Your task to perform on an android device: change timer sound Image 0: 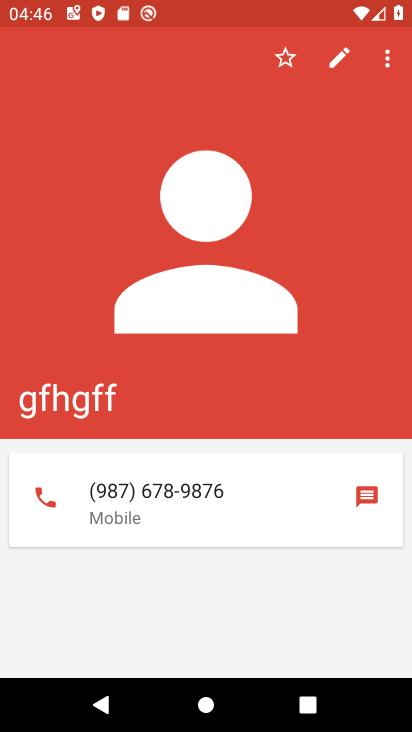
Step 0: press home button
Your task to perform on an android device: change timer sound Image 1: 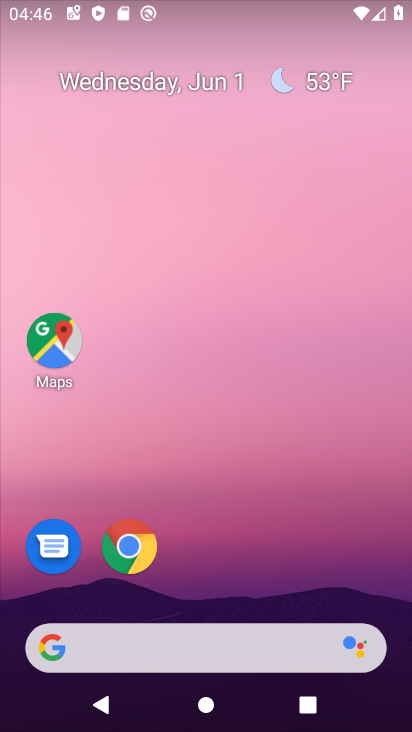
Step 1: drag from (248, 555) to (202, 139)
Your task to perform on an android device: change timer sound Image 2: 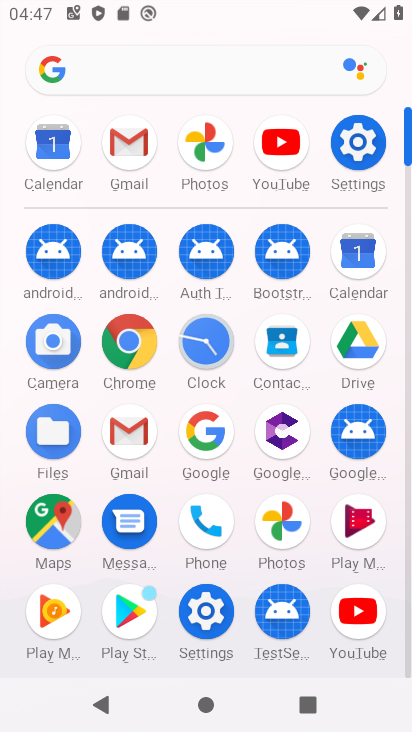
Step 2: click (207, 341)
Your task to perform on an android device: change timer sound Image 3: 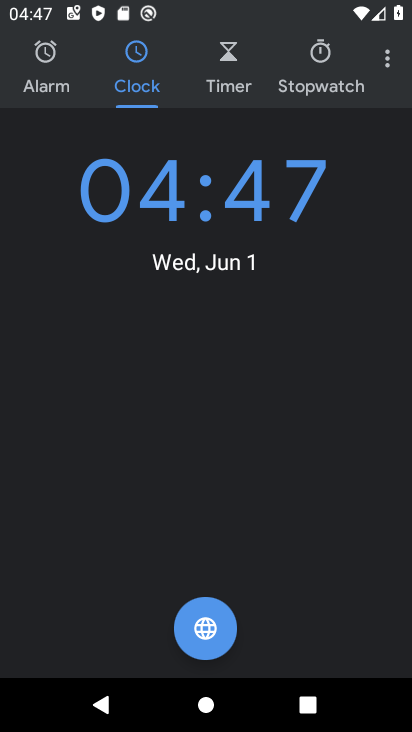
Step 3: click (384, 60)
Your task to perform on an android device: change timer sound Image 4: 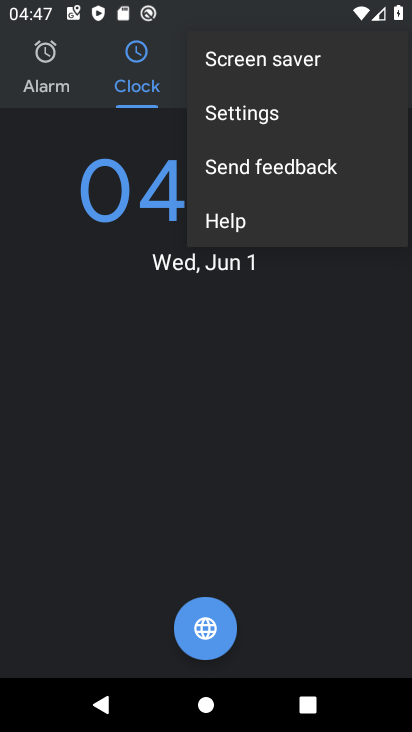
Step 4: click (264, 110)
Your task to perform on an android device: change timer sound Image 5: 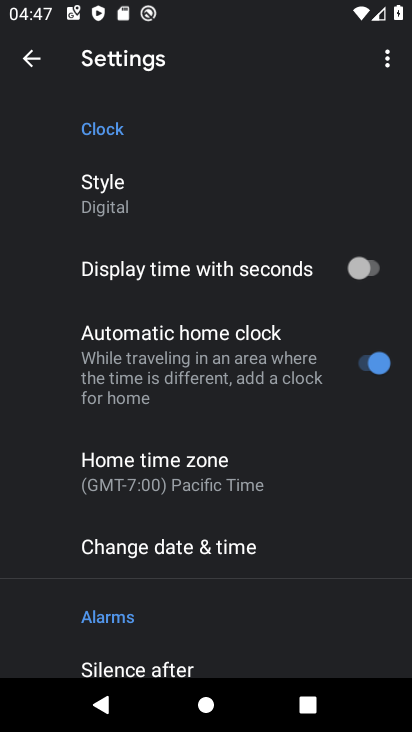
Step 5: drag from (312, 575) to (317, 369)
Your task to perform on an android device: change timer sound Image 6: 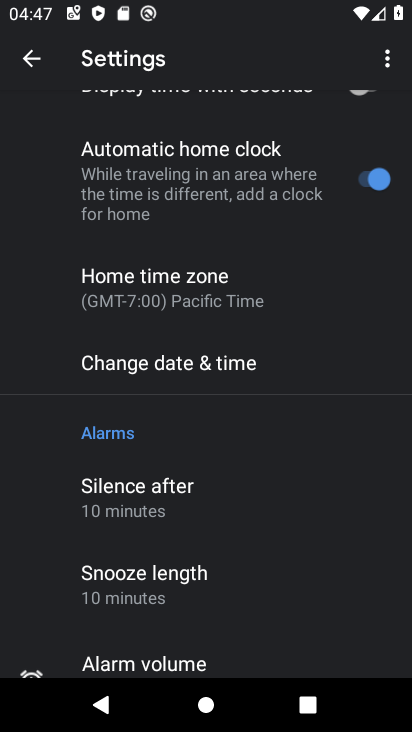
Step 6: drag from (233, 518) to (249, 262)
Your task to perform on an android device: change timer sound Image 7: 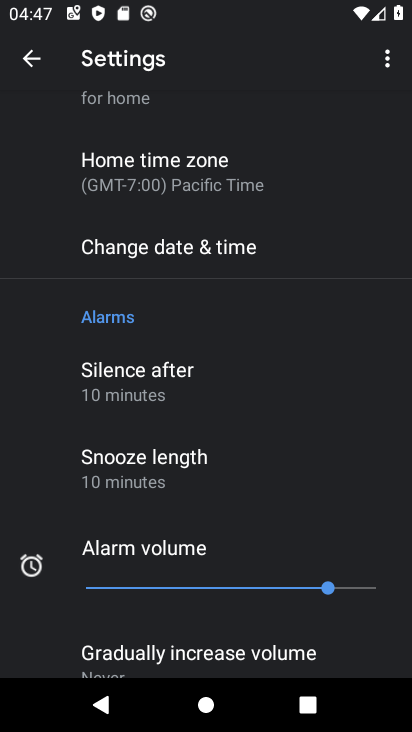
Step 7: drag from (308, 518) to (323, 288)
Your task to perform on an android device: change timer sound Image 8: 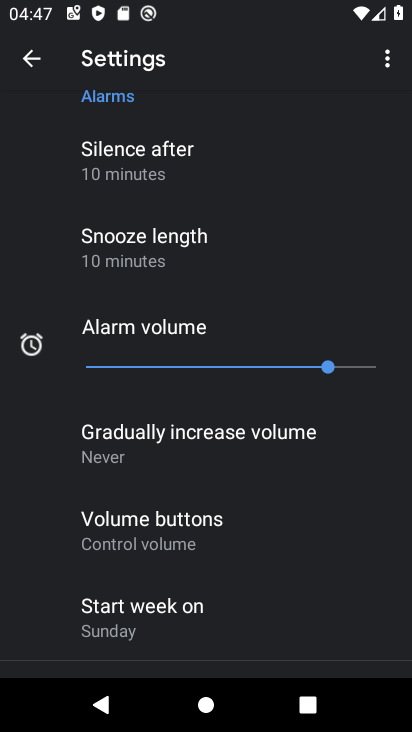
Step 8: drag from (263, 553) to (278, 397)
Your task to perform on an android device: change timer sound Image 9: 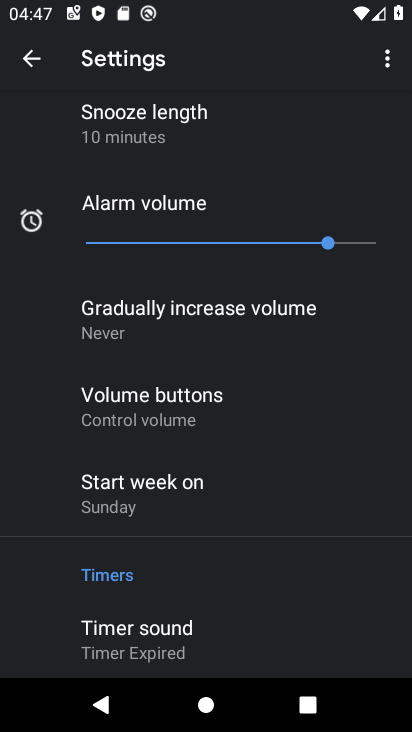
Step 9: click (148, 619)
Your task to perform on an android device: change timer sound Image 10: 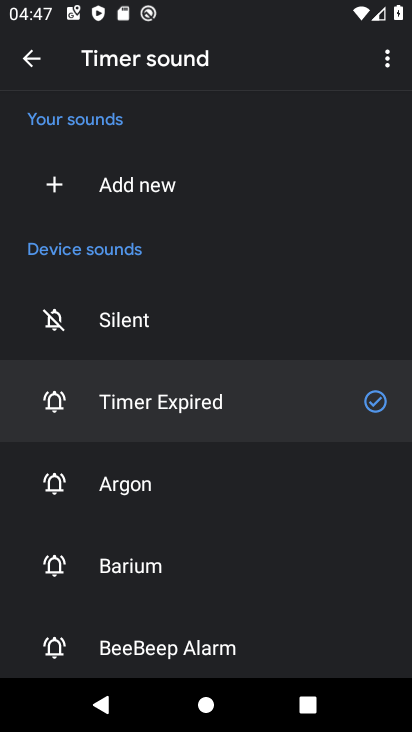
Step 10: click (131, 472)
Your task to perform on an android device: change timer sound Image 11: 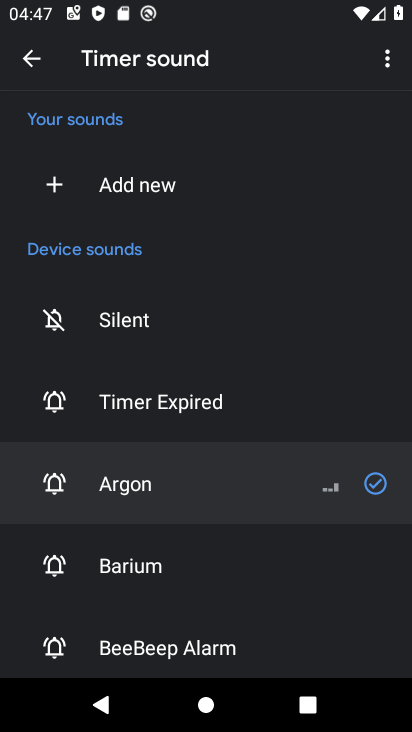
Step 11: task complete